Your task to perform on an android device: toggle improve location accuracy Image 0: 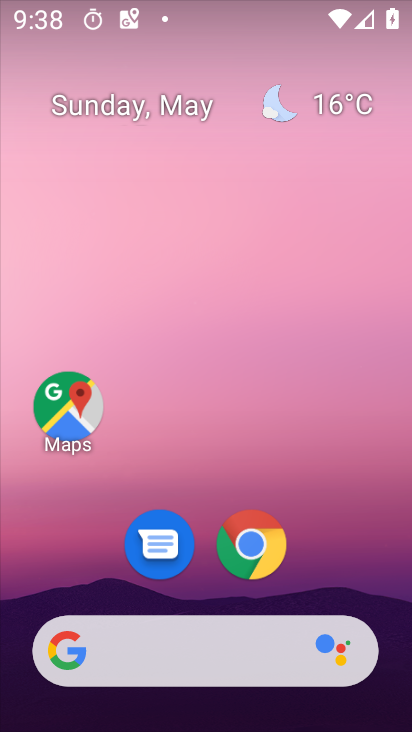
Step 0: press home button
Your task to perform on an android device: toggle improve location accuracy Image 1: 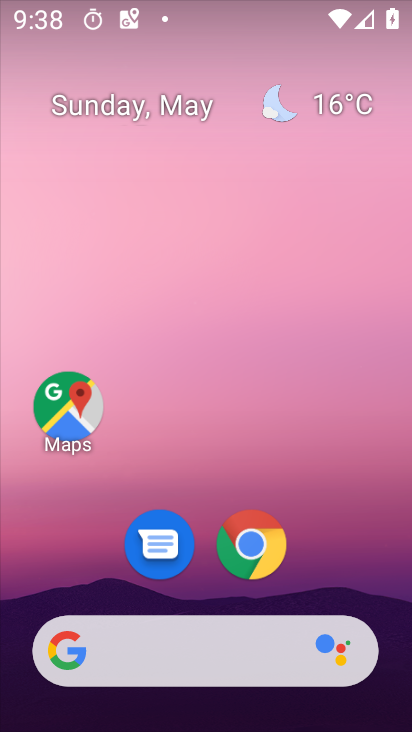
Step 1: drag from (332, 568) to (163, 5)
Your task to perform on an android device: toggle improve location accuracy Image 2: 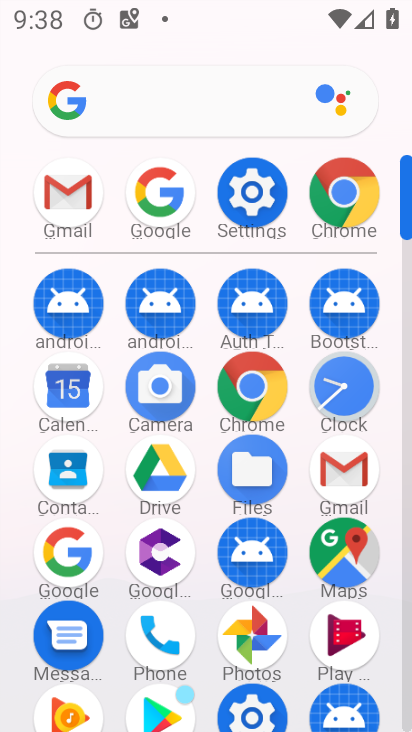
Step 2: click (247, 208)
Your task to perform on an android device: toggle improve location accuracy Image 3: 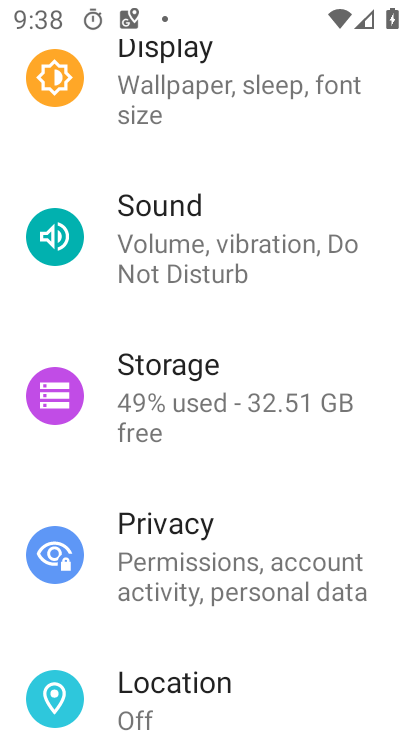
Step 3: drag from (180, 581) to (229, 342)
Your task to perform on an android device: toggle improve location accuracy Image 4: 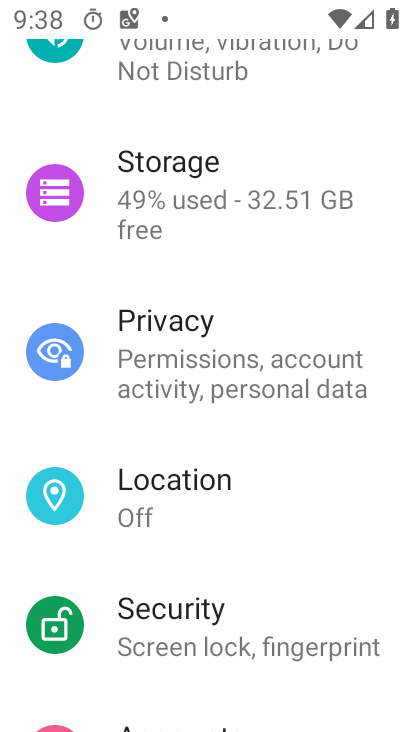
Step 4: click (214, 512)
Your task to perform on an android device: toggle improve location accuracy Image 5: 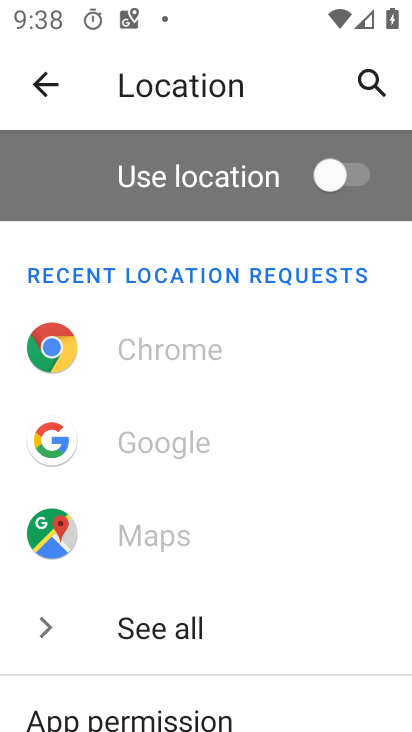
Step 5: drag from (216, 630) to (222, 196)
Your task to perform on an android device: toggle improve location accuracy Image 6: 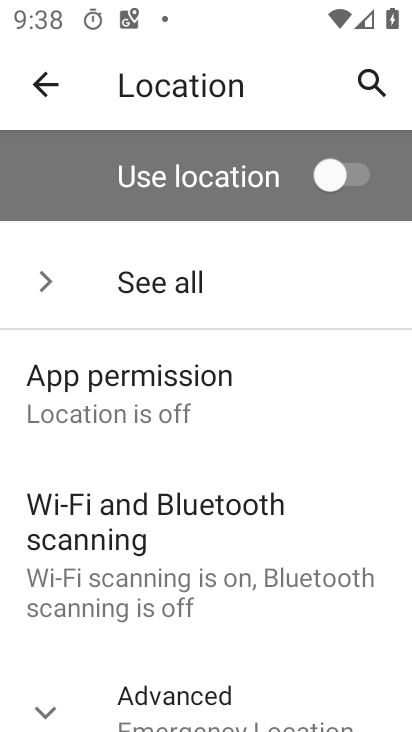
Step 6: drag from (155, 666) to (168, 353)
Your task to perform on an android device: toggle improve location accuracy Image 7: 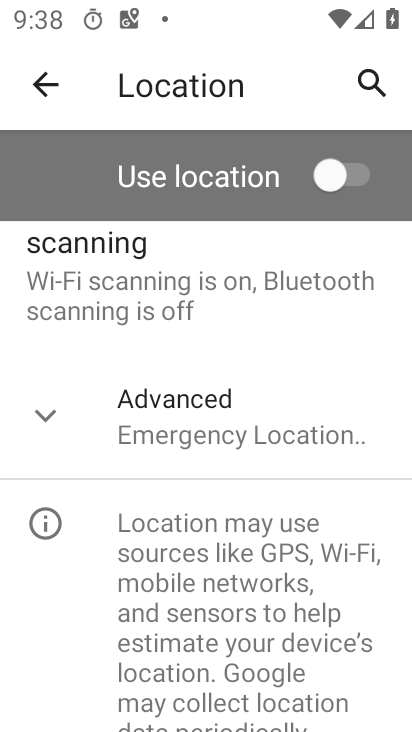
Step 7: click (167, 439)
Your task to perform on an android device: toggle improve location accuracy Image 8: 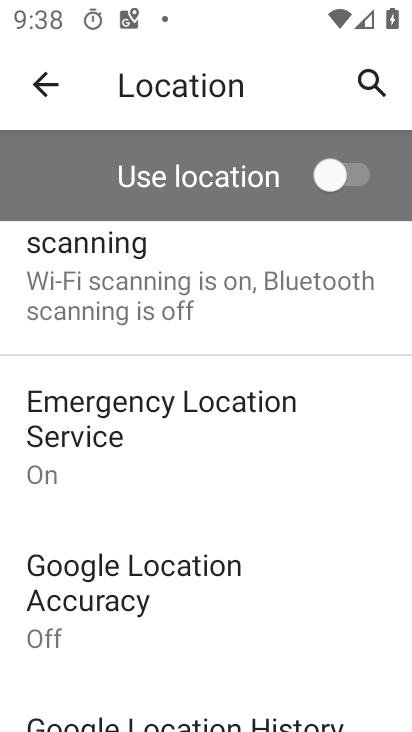
Step 8: click (136, 620)
Your task to perform on an android device: toggle improve location accuracy Image 9: 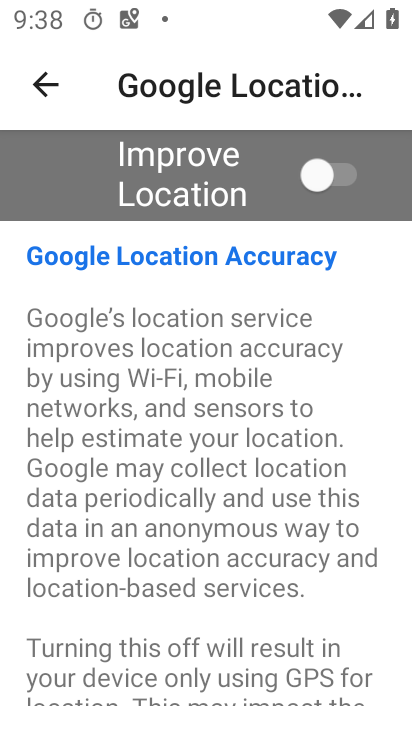
Step 9: click (348, 180)
Your task to perform on an android device: toggle improve location accuracy Image 10: 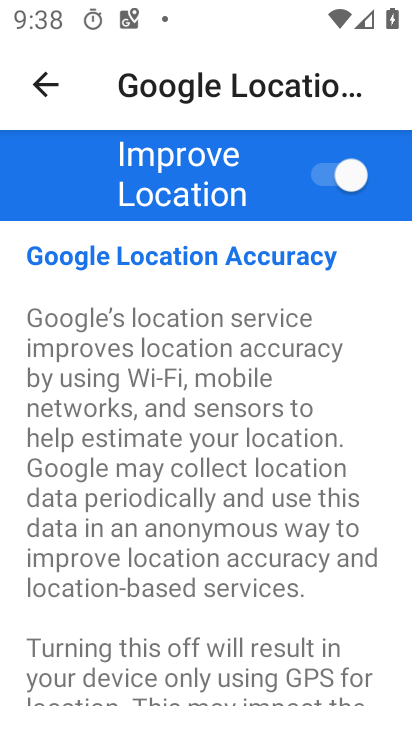
Step 10: task complete